Your task to perform on an android device: delete location history Image 0: 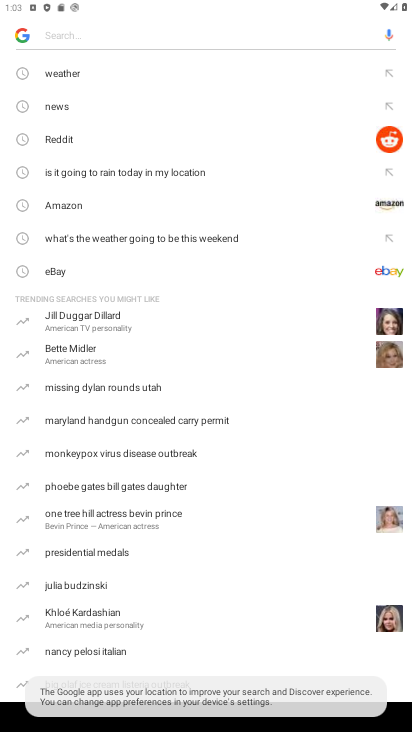
Step 0: press home button
Your task to perform on an android device: delete location history Image 1: 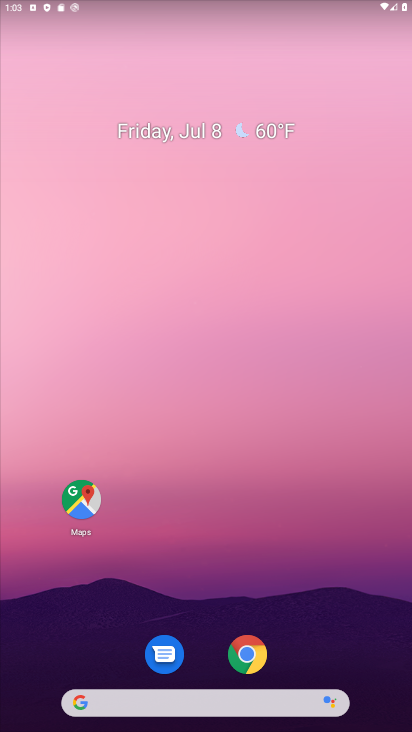
Step 1: click (84, 492)
Your task to perform on an android device: delete location history Image 2: 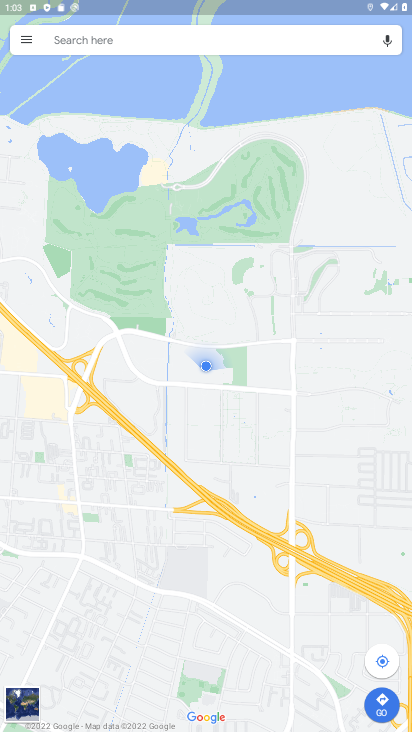
Step 2: click (12, 40)
Your task to perform on an android device: delete location history Image 3: 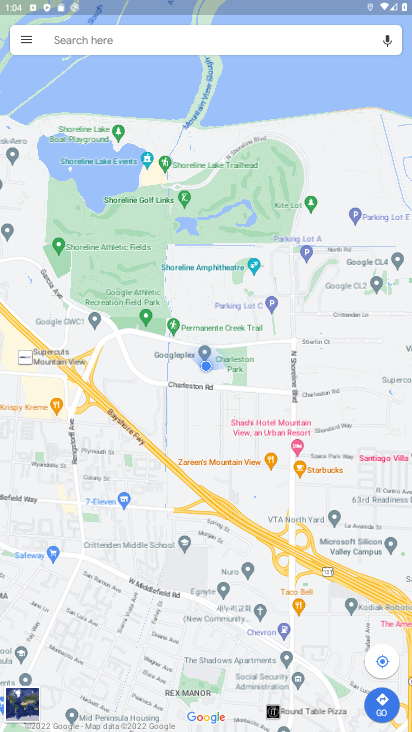
Step 3: click (30, 48)
Your task to perform on an android device: delete location history Image 4: 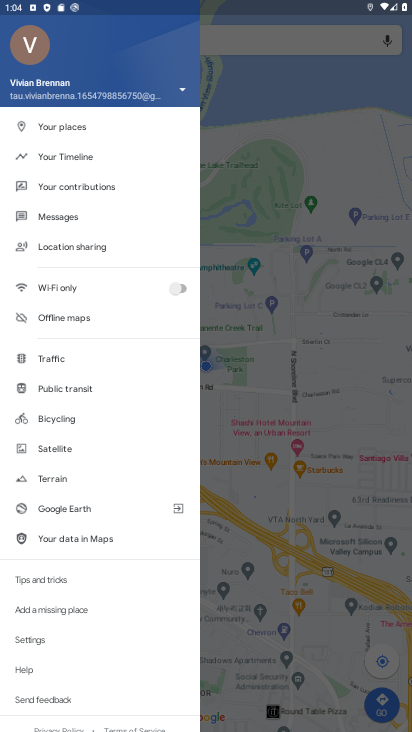
Step 4: click (64, 164)
Your task to perform on an android device: delete location history Image 5: 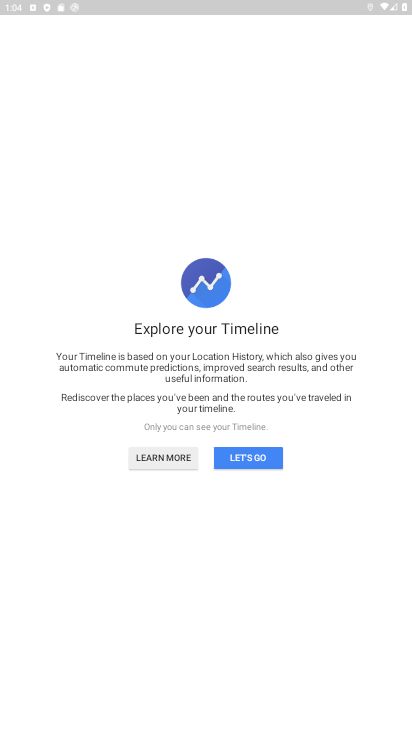
Step 5: click (266, 460)
Your task to perform on an android device: delete location history Image 6: 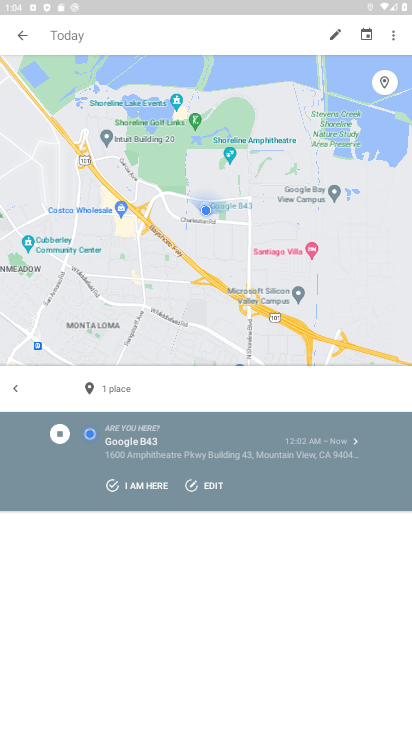
Step 6: click (402, 41)
Your task to perform on an android device: delete location history Image 7: 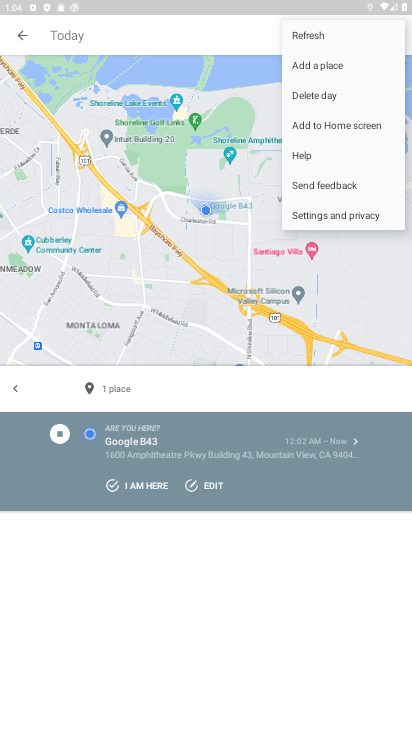
Step 7: click (347, 224)
Your task to perform on an android device: delete location history Image 8: 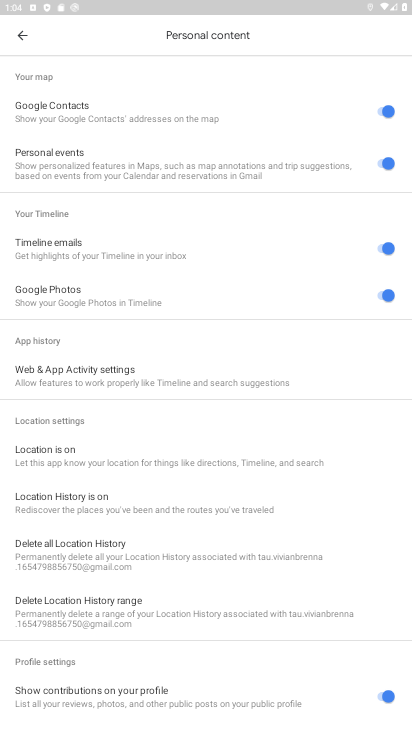
Step 8: click (159, 556)
Your task to perform on an android device: delete location history Image 9: 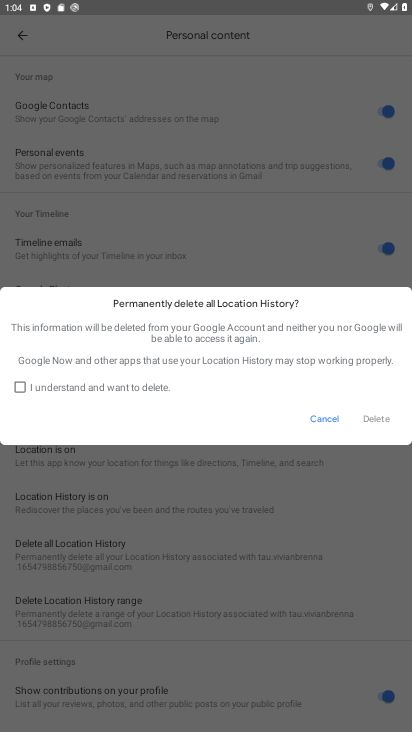
Step 9: click (23, 387)
Your task to perform on an android device: delete location history Image 10: 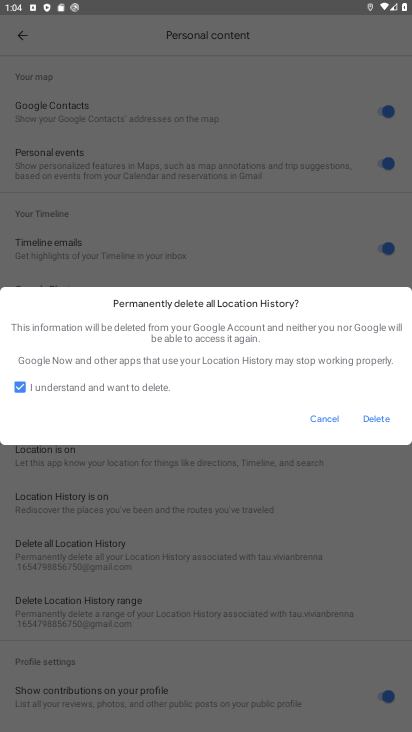
Step 10: click (381, 423)
Your task to perform on an android device: delete location history Image 11: 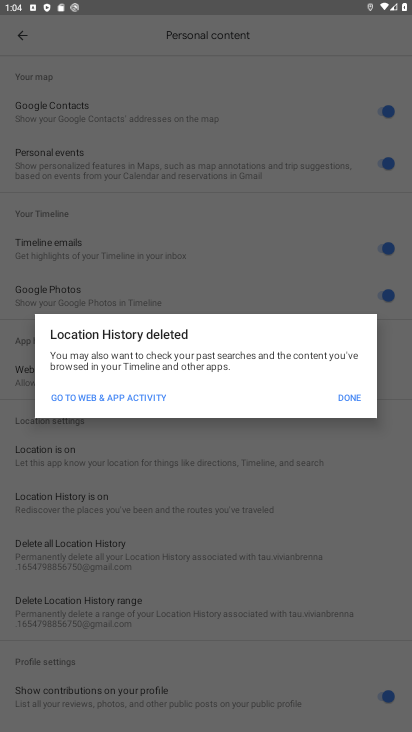
Step 11: click (364, 395)
Your task to perform on an android device: delete location history Image 12: 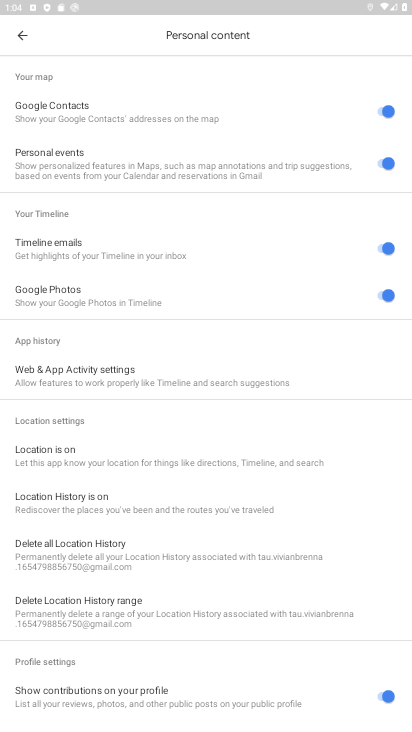
Step 12: task complete